Your task to perform on an android device: change the clock display to show seconds Image 0: 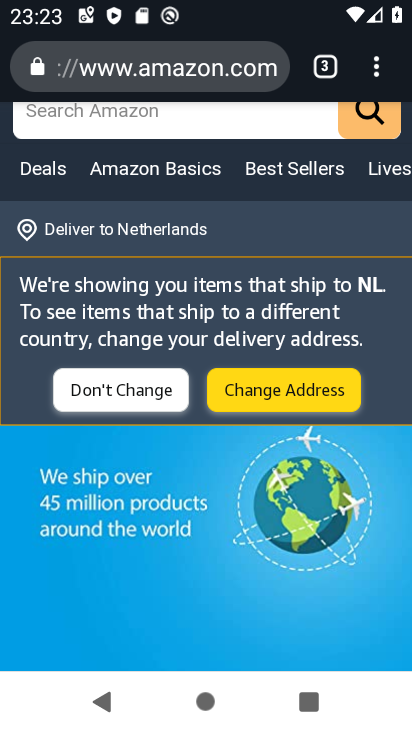
Step 0: press home button
Your task to perform on an android device: change the clock display to show seconds Image 1: 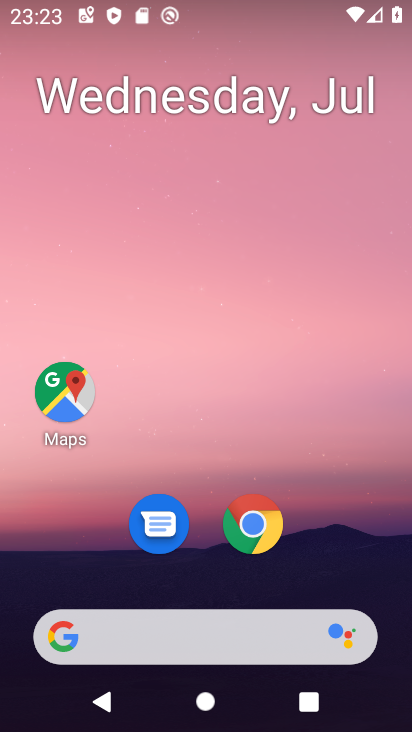
Step 1: drag from (230, 601) to (351, 96)
Your task to perform on an android device: change the clock display to show seconds Image 2: 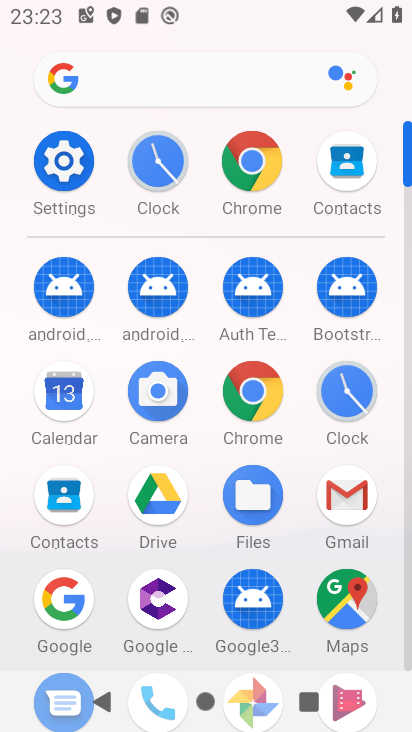
Step 2: click (348, 373)
Your task to perform on an android device: change the clock display to show seconds Image 3: 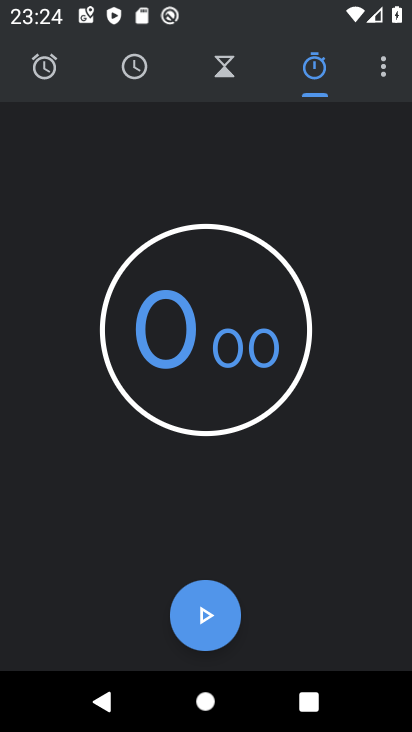
Step 3: click (387, 61)
Your task to perform on an android device: change the clock display to show seconds Image 4: 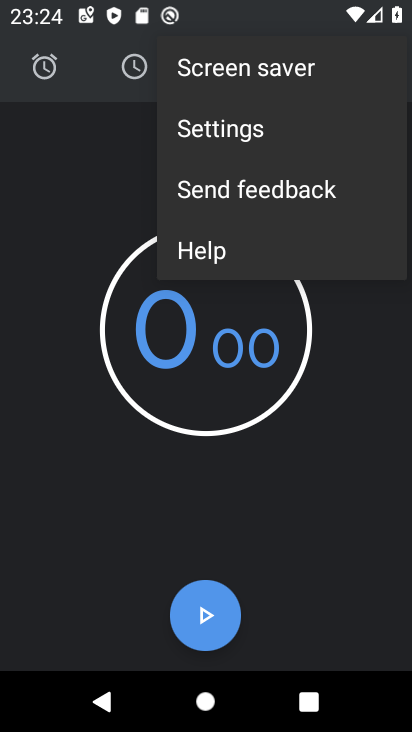
Step 4: click (245, 124)
Your task to perform on an android device: change the clock display to show seconds Image 5: 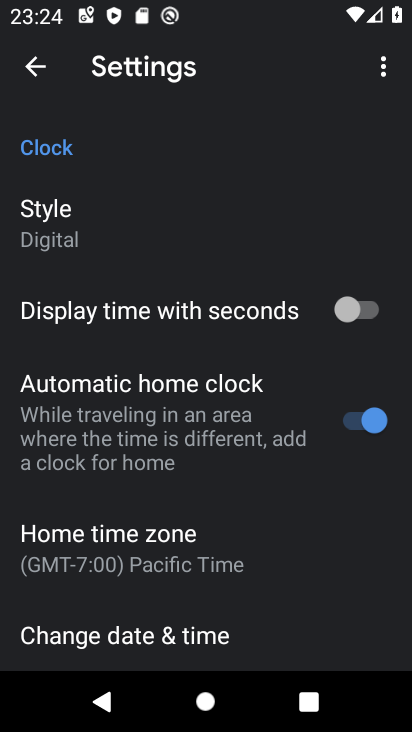
Step 5: click (366, 311)
Your task to perform on an android device: change the clock display to show seconds Image 6: 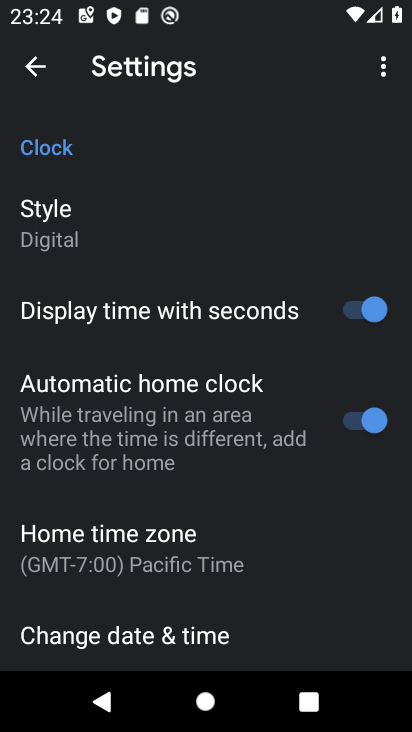
Step 6: task complete